Your task to perform on an android device: toggle notifications settings in the gmail app Image 0: 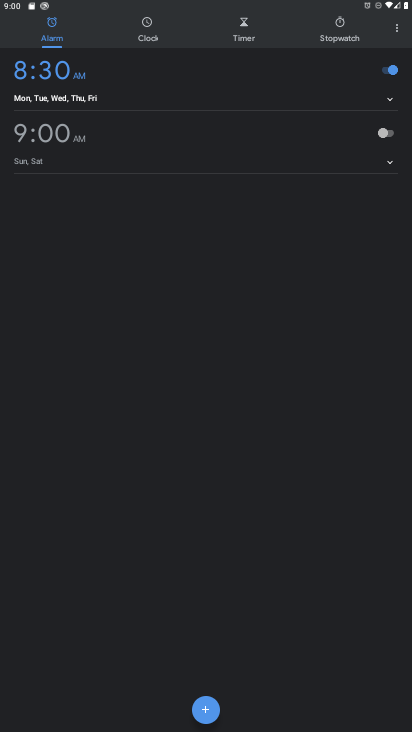
Step 0: press home button
Your task to perform on an android device: toggle notifications settings in the gmail app Image 1: 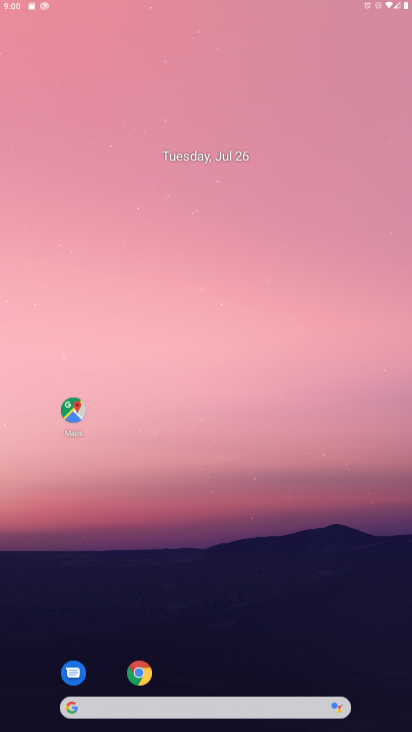
Step 1: drag from (394, 710) to (258, 50)
Your task to perform on an android device: toggle notifications settings in the gmail app Image 2: 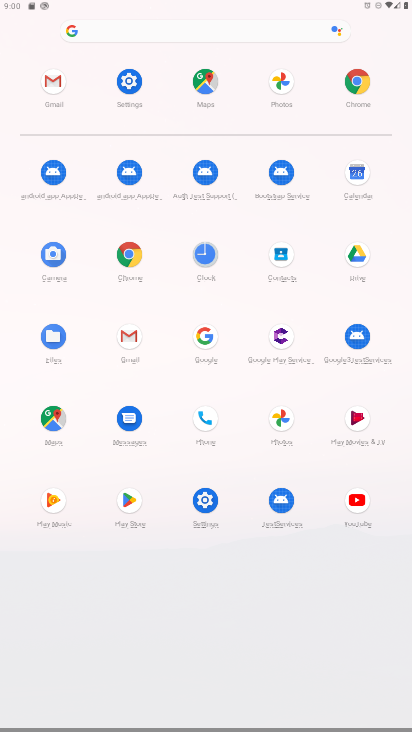
Step 2: click (125, 339)
Your task to perform on an android device: toggle notifications settings in the gmail app Image 3: 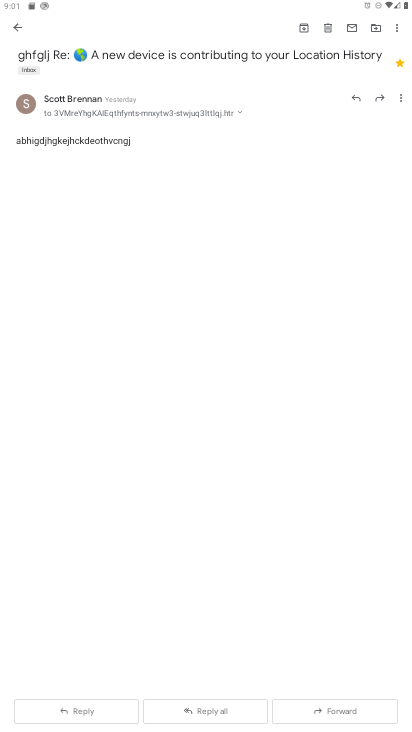
Step 3: press back button
Your task to perform on an android device: toggle notifications settings in the gmail app Image 4: 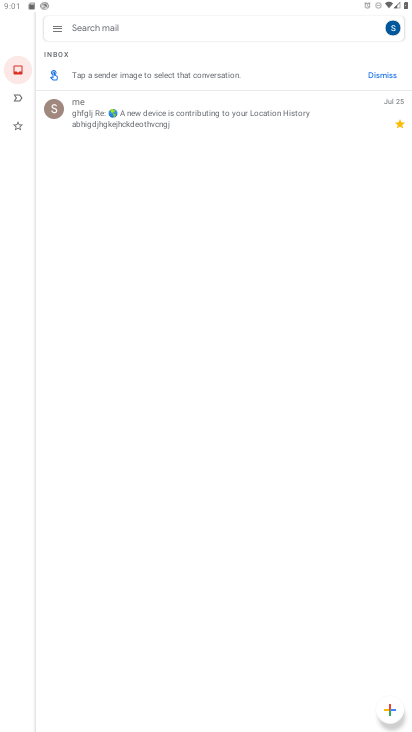
Step 4: click (58, 22)
Your task to perform on an android device: toggle notifications settings in the gmail app Image 5: 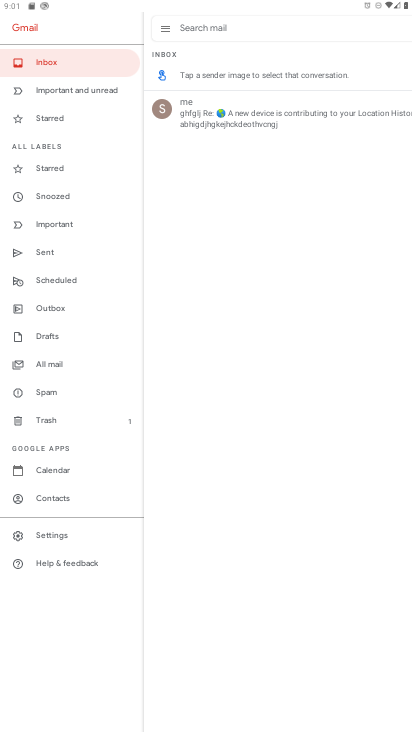
Step 5: click (52, 524)
Your task to perform on an android device: toggle notifications settings in the gmail app Image 6: 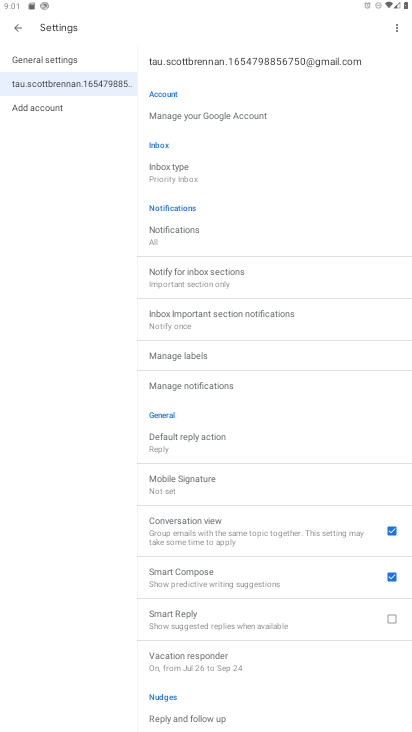
Step 6: click (184, 238)
Your task to perform on an android device: toggle notifications settings in the gmail app Image 7: 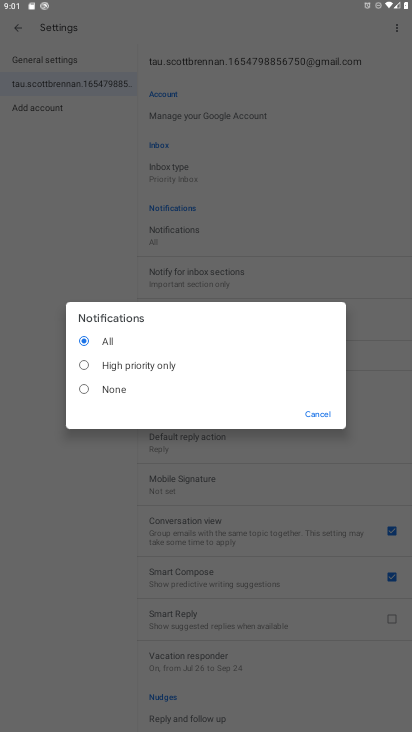
Step 7: click (80, 388)
Your task to perform on an android device: toggle notifications settings in the gmail app Image 8: 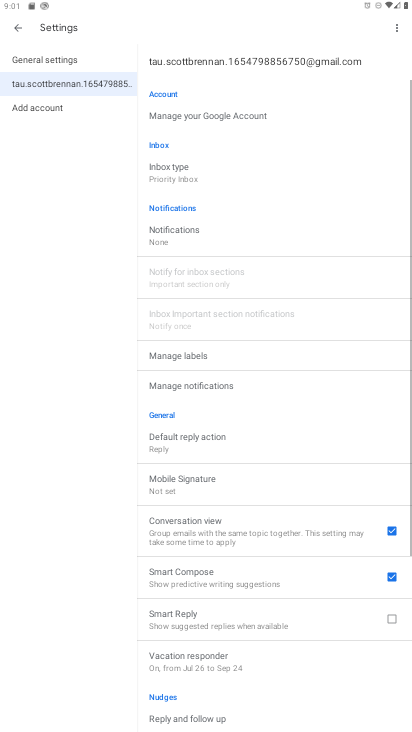
Step 8: task complete